Your task to perform on an android device: open app "Mercado Libre" (install if not already installed) Image 0: 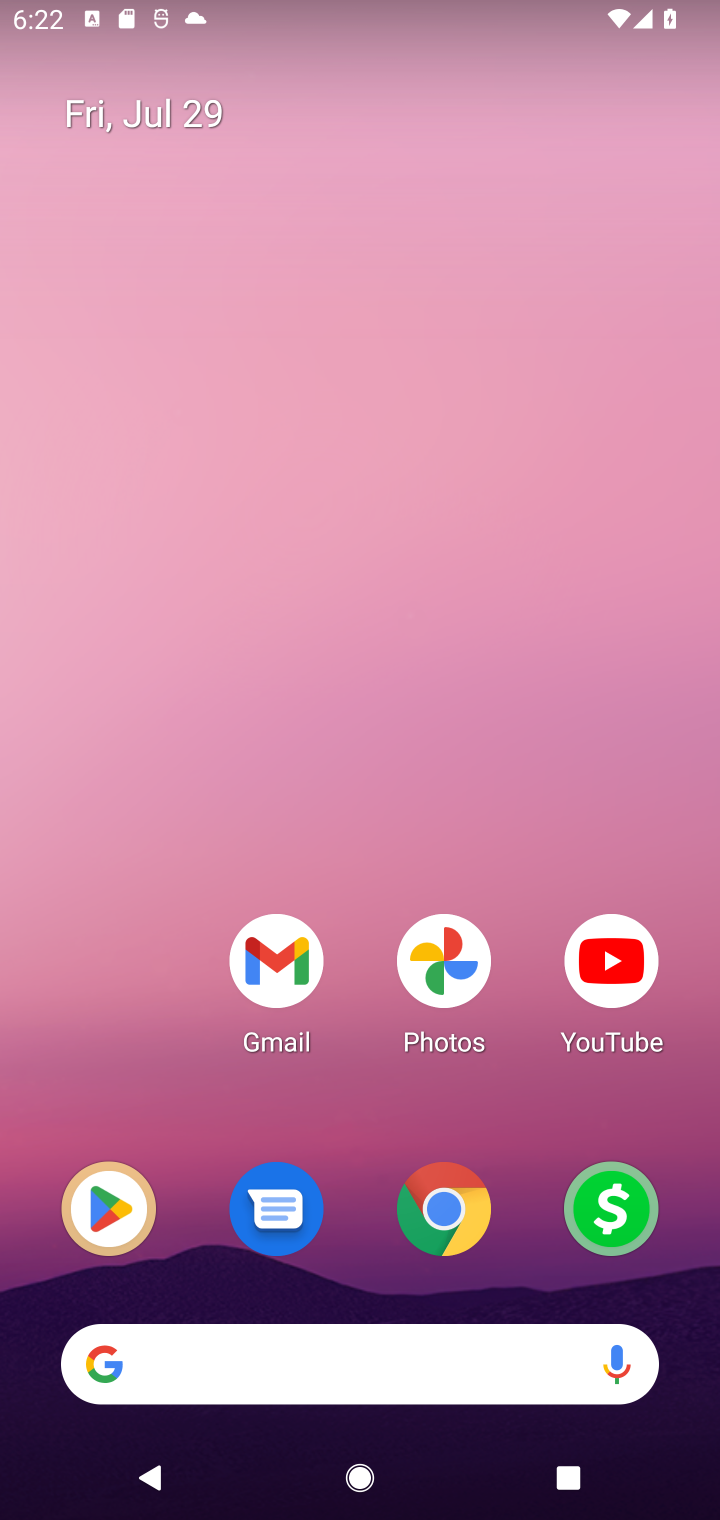
Step 0: click (83, 1225)
Your task to perform on an android device: open app "Mercado Libre" (install if not already installed) Image 1: 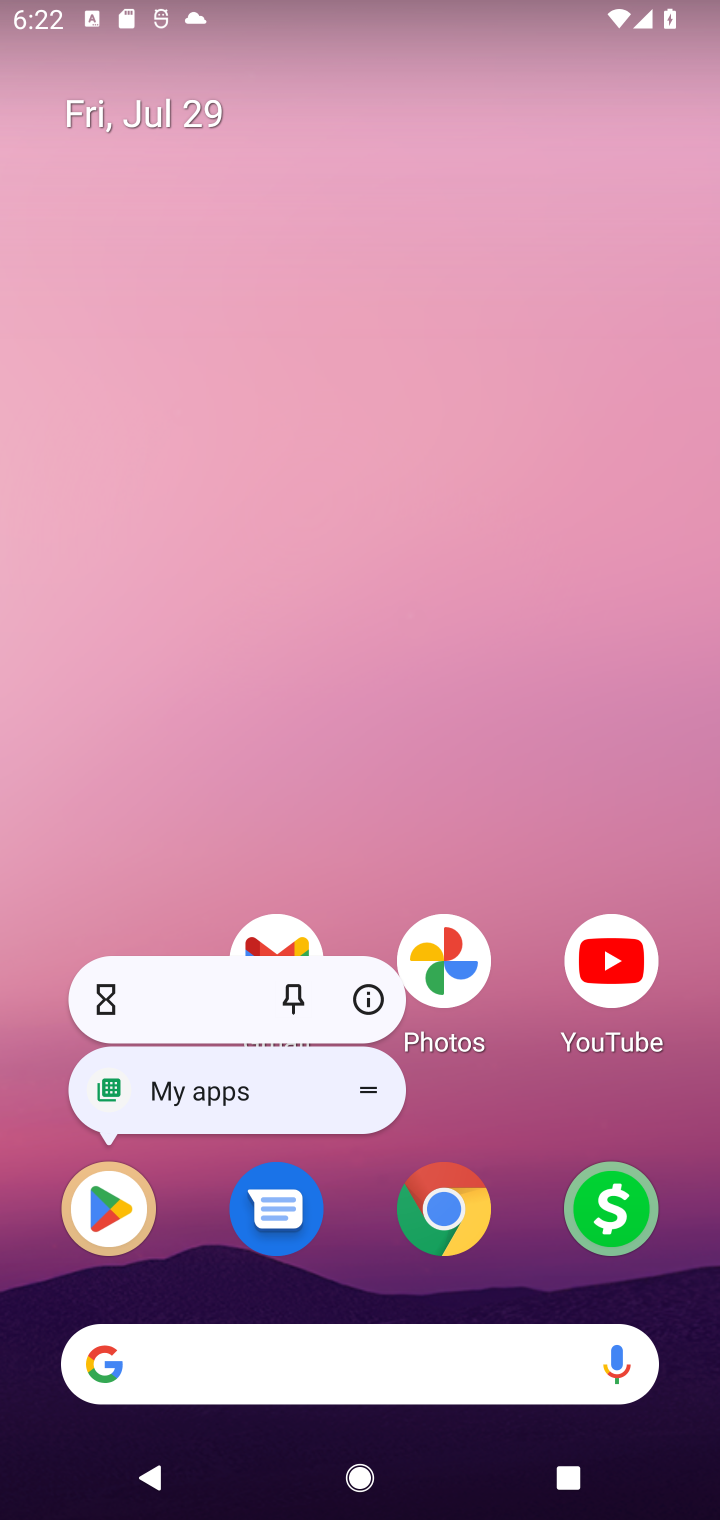
Step 1: click (107, 1225)
Your task to perform on an android device: open app "Mercado Libre" (install if not already installed) Image 2: 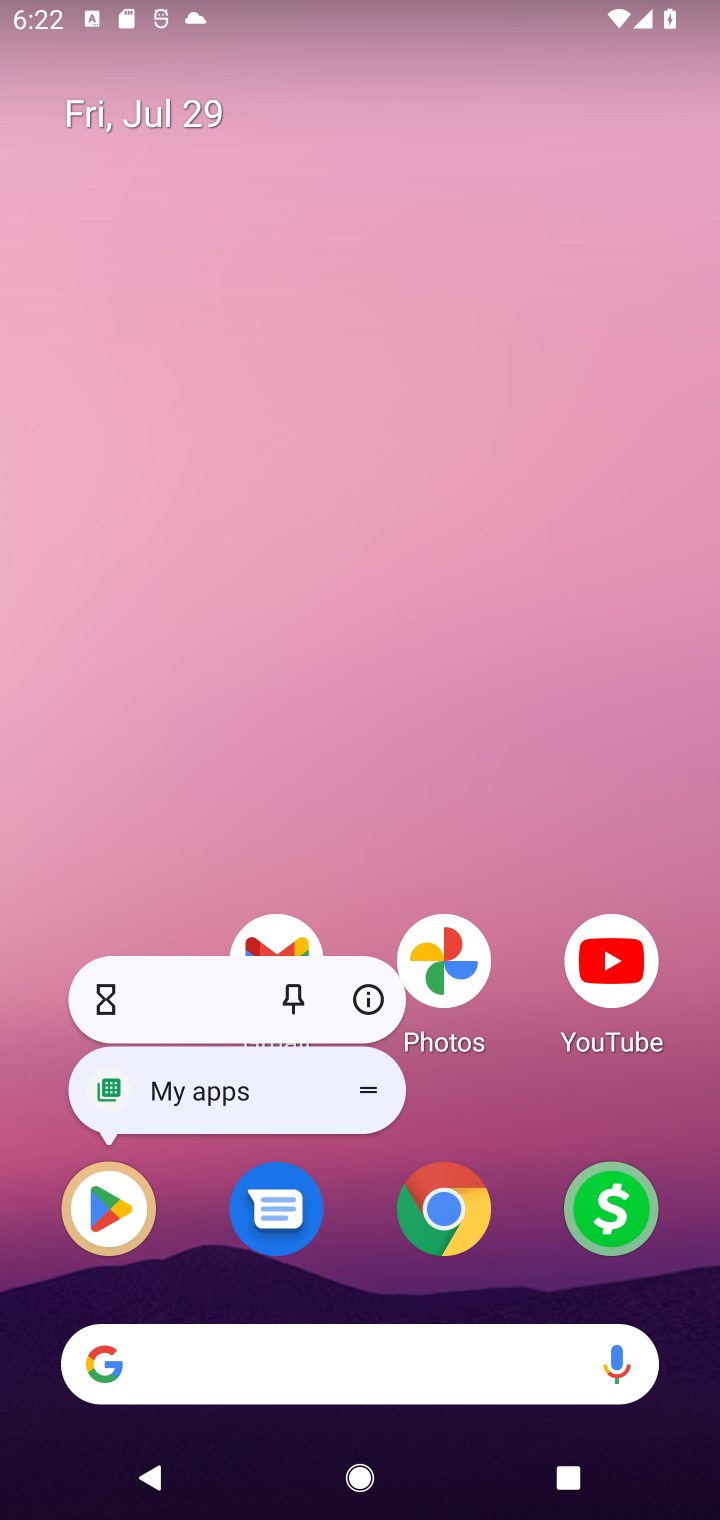
Step 2: click (108, 1225)
Your task to perform on an android device: open app "Mercado Libre" (install if not already installed) Image 3: 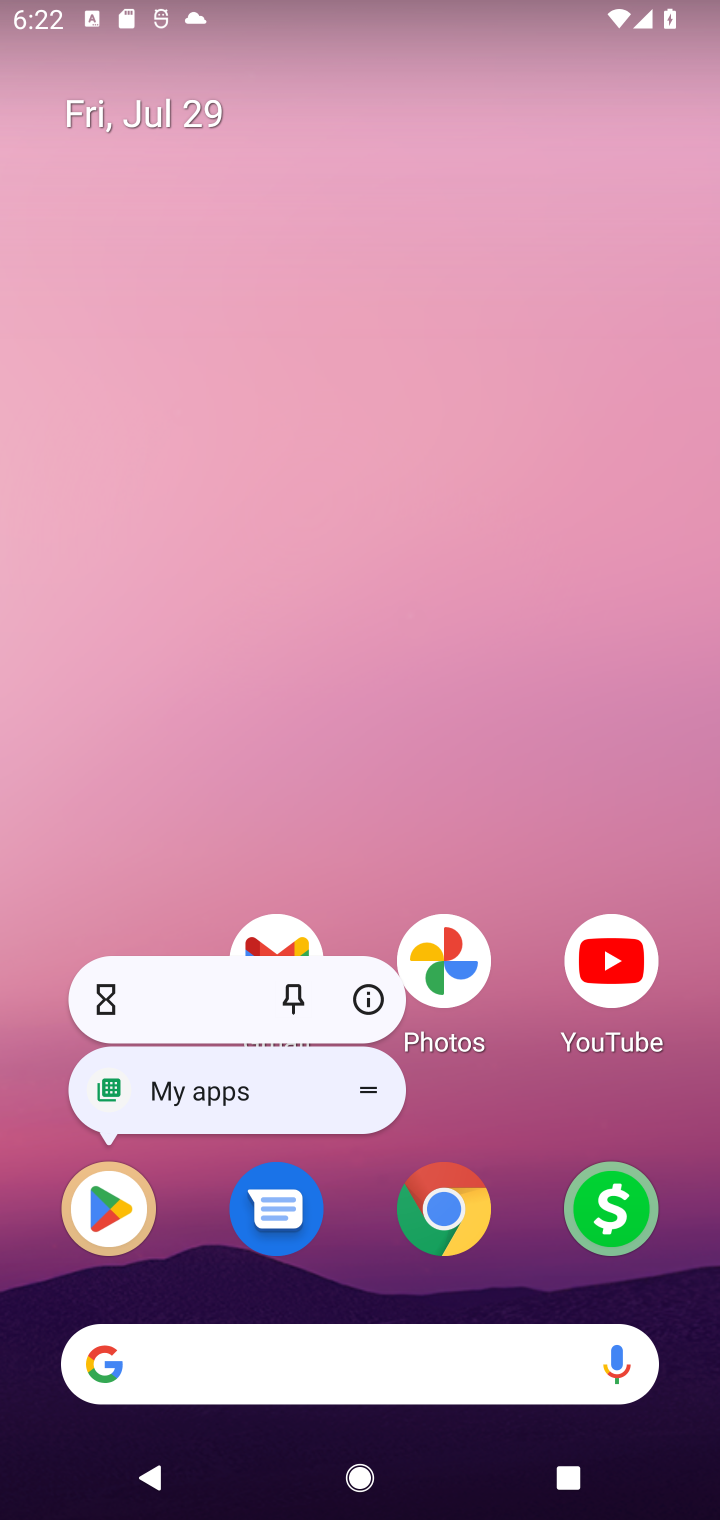
Step 3: click (108, 1225)
Your task to perform on an android device: open app "Mercado Libre" (install if not already installed) Image 4: 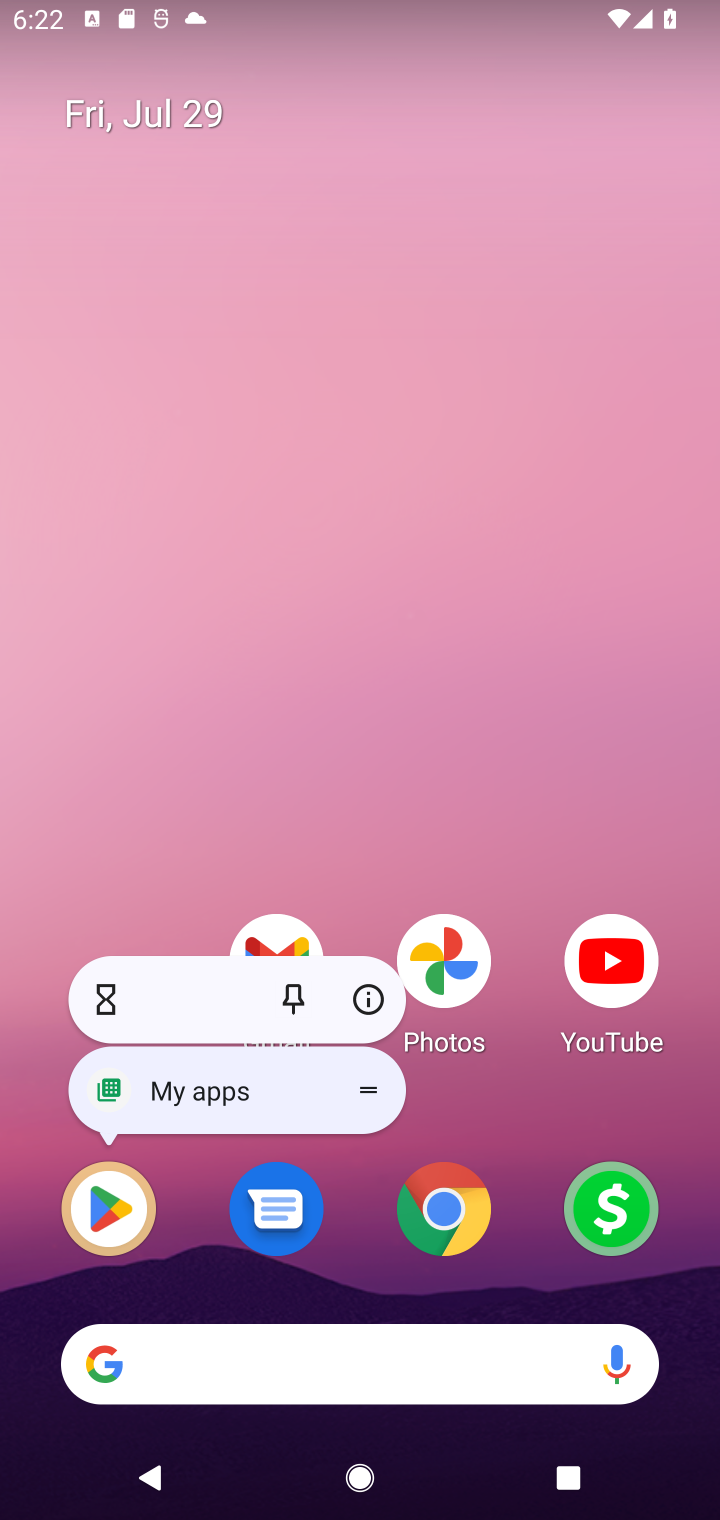
Step 4: click (108, 1225)
Your task to perform on an android device: open app "Mercado Libre" (install if not already installed) Image 5: 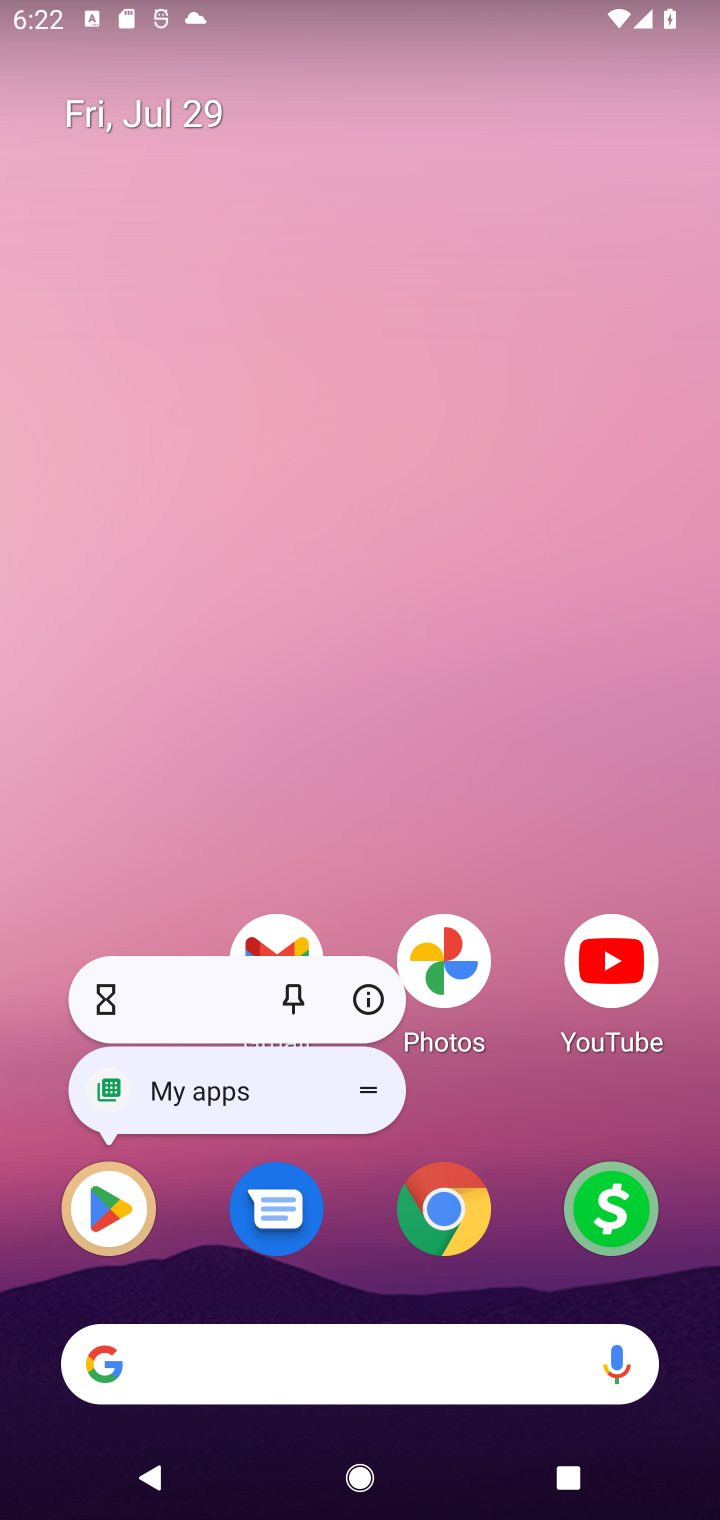
Step 5: click (108, 1225)
Your task to perform on an android device: open app "Mercado Libre" (install if not already installed) Image 6: 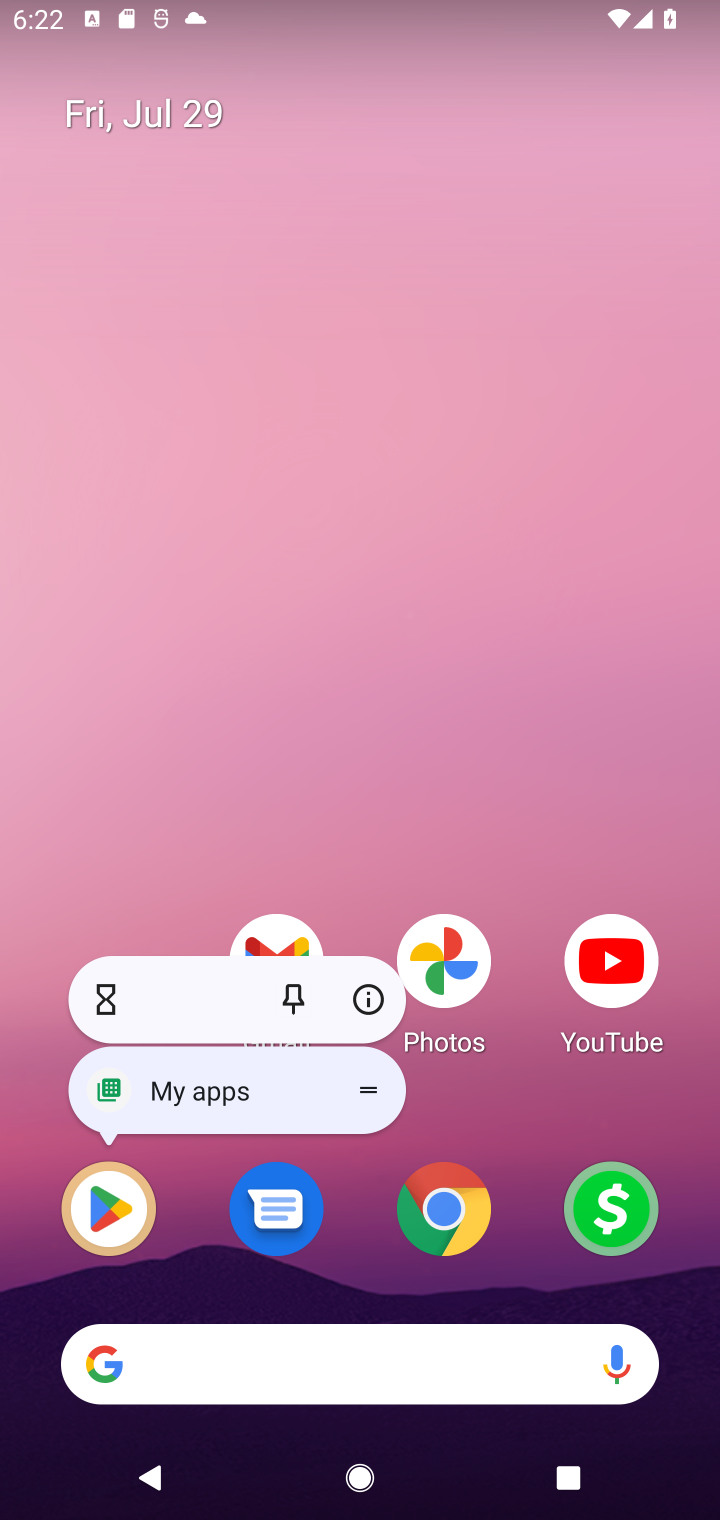
Step 6: click (108, 1225)
Your task to perform on an android device: open app "Mercado Libre" (install if not already installed) Image 7: 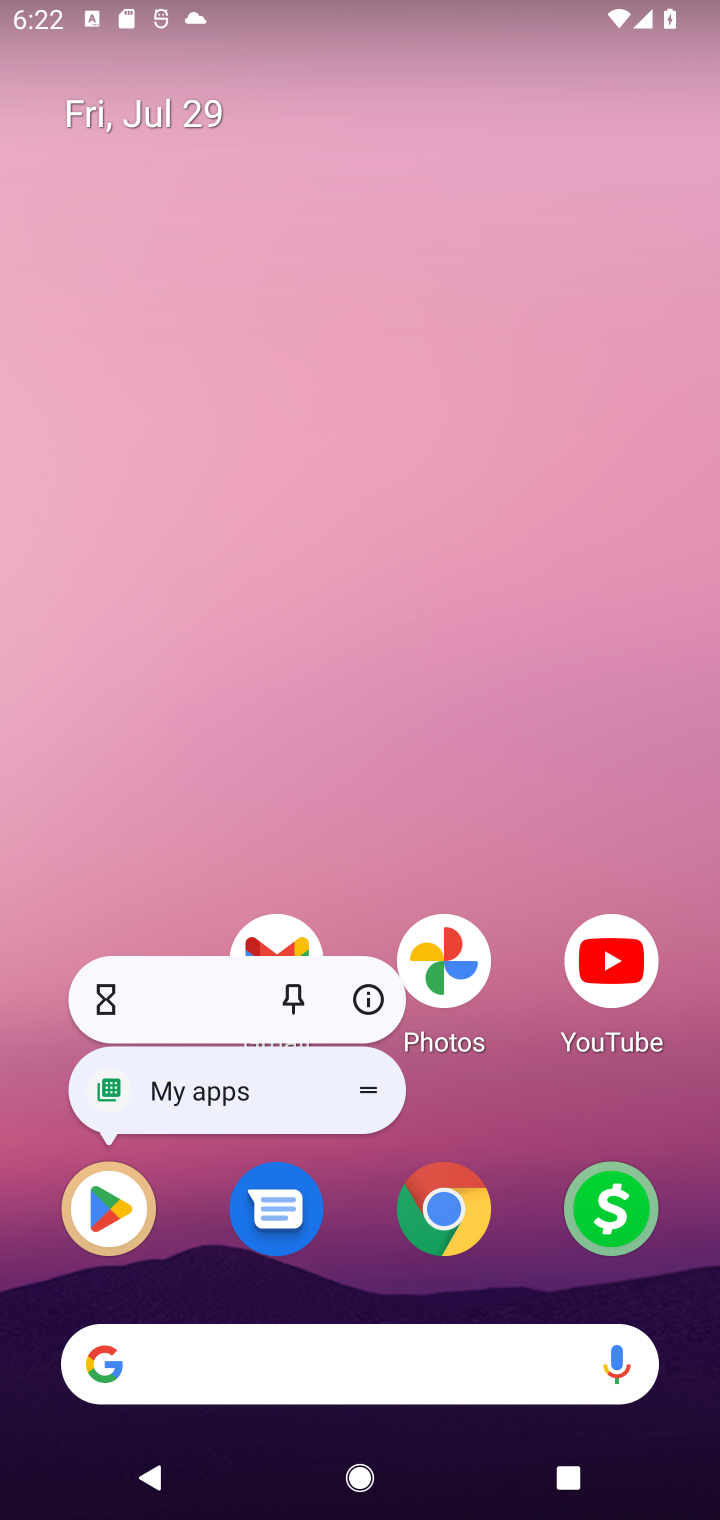
Step 7: click (108, 1225)
Your task to perform on an android device: open app "Mercado Libre" (install if not already installed) Image 8: 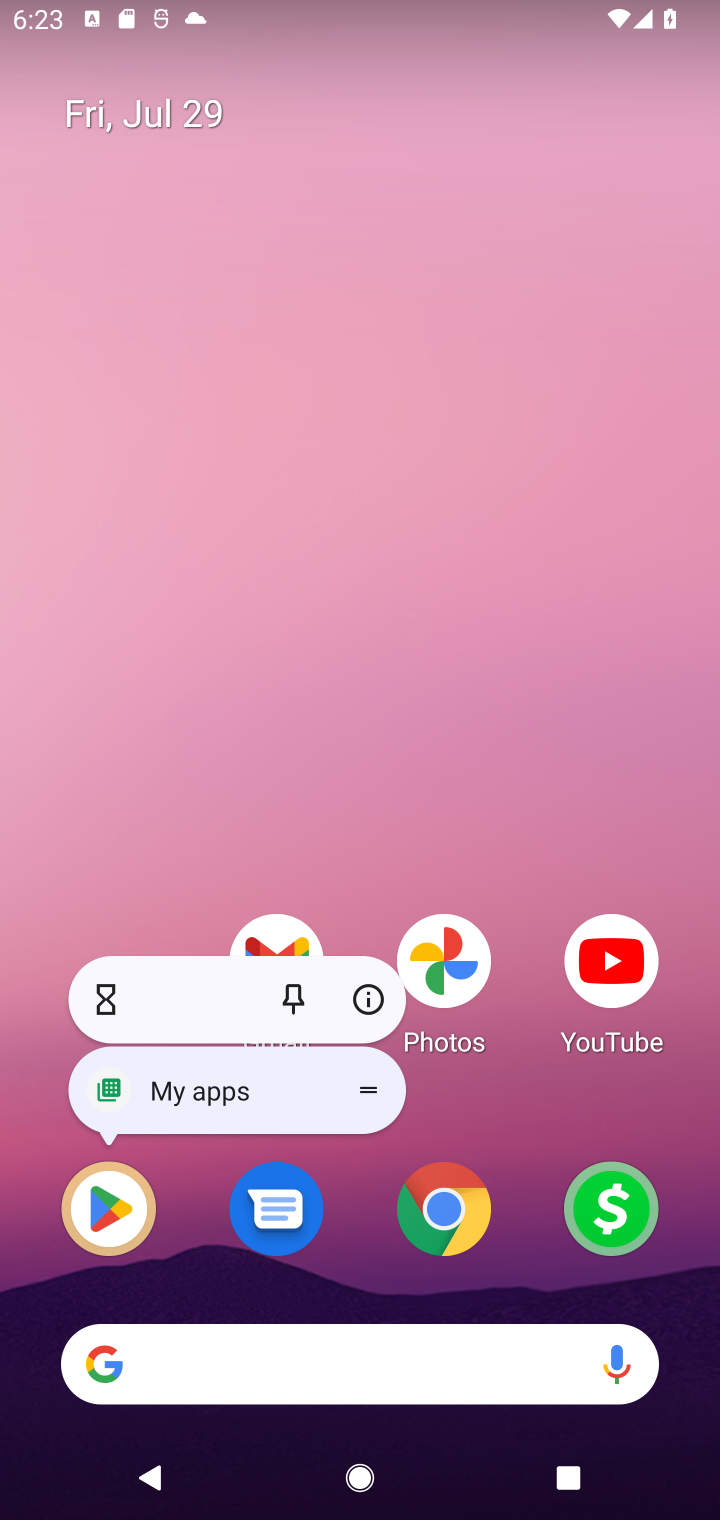
Step 8: click (108, 1225)
Your task to perform on an android device: open app "Mercado Libre" (install if not already installed) Image 9: 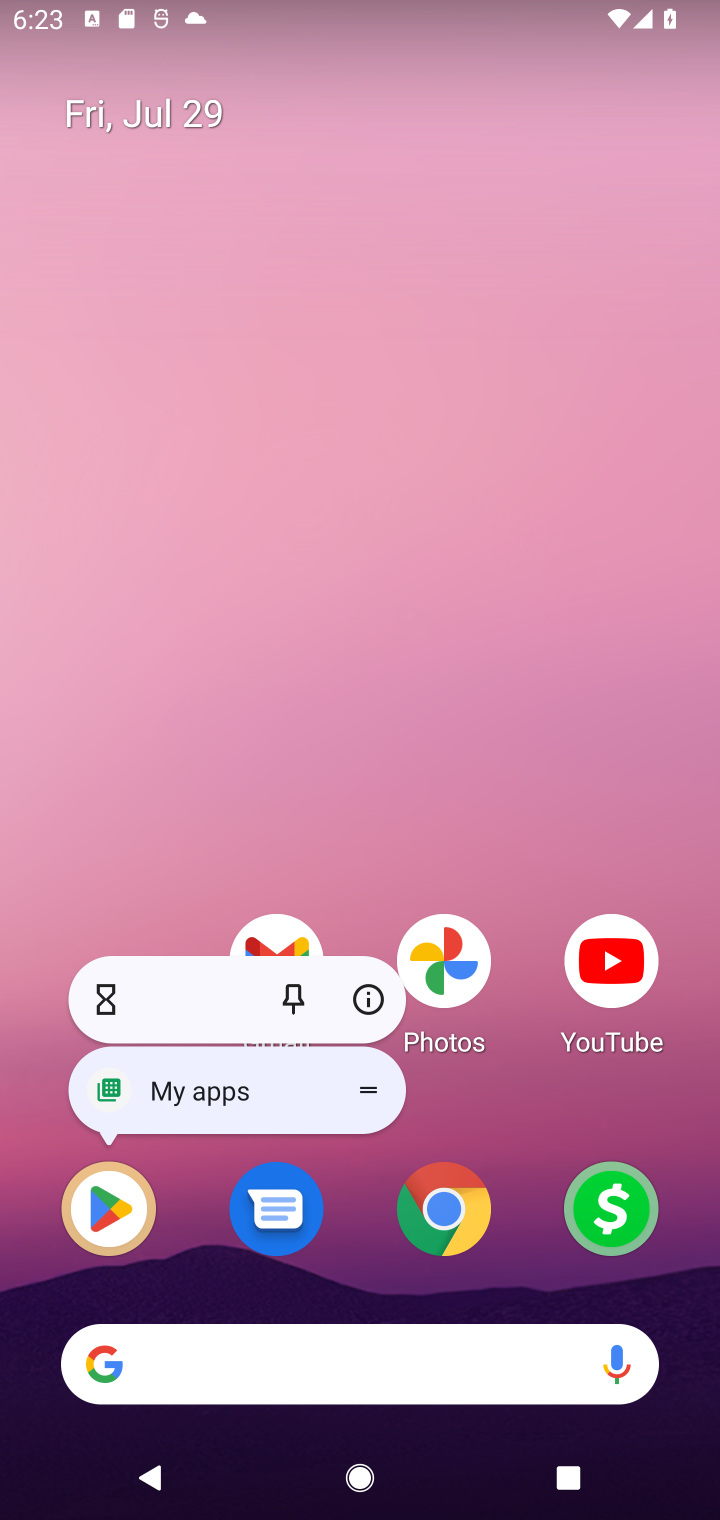
Step 9: click (108, 1225)
Your task to perform on an android device: open app "Mercado Libre" (install if not already installed) Image 10: 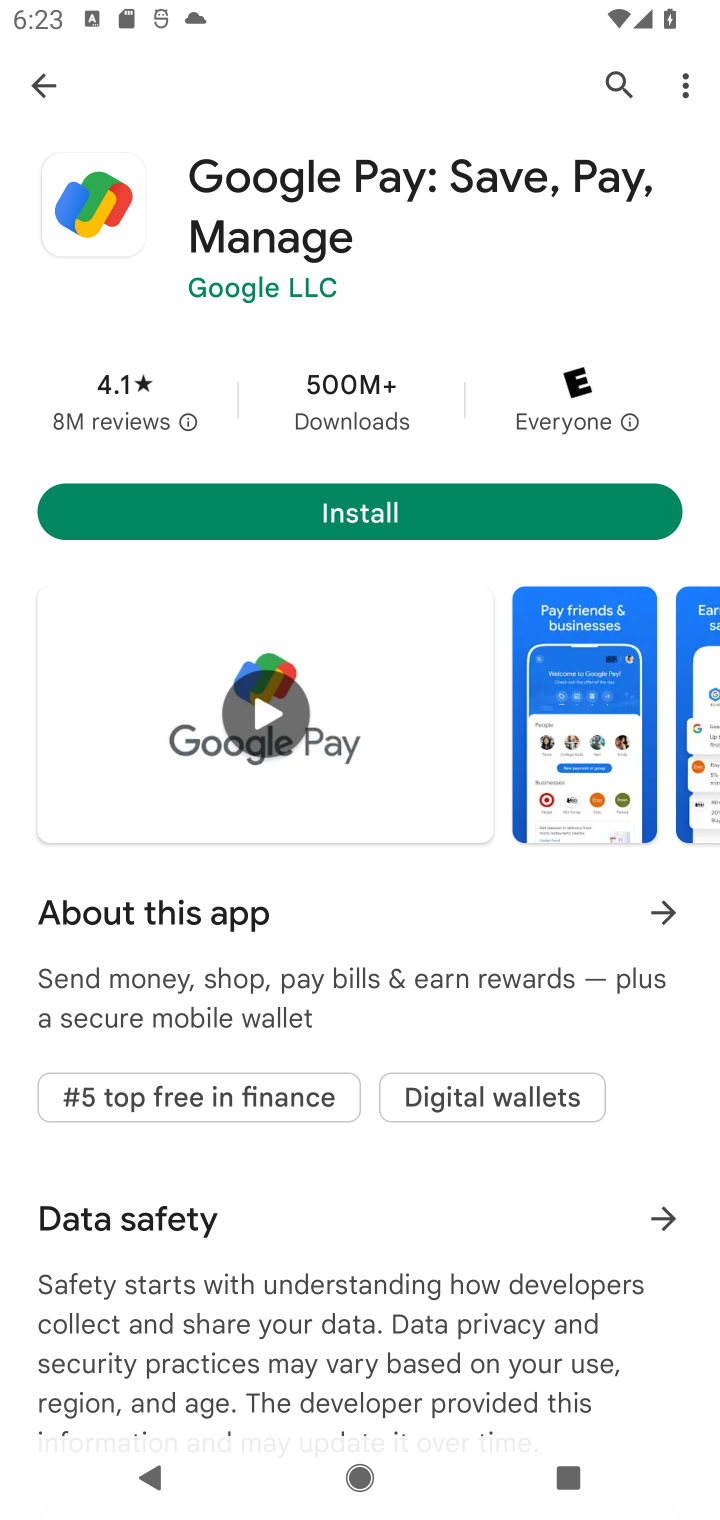
Step 10: click (626, 87)
Your task to perform on an android device: open app "Mercado Libre" (install if not already installed) Image 11: 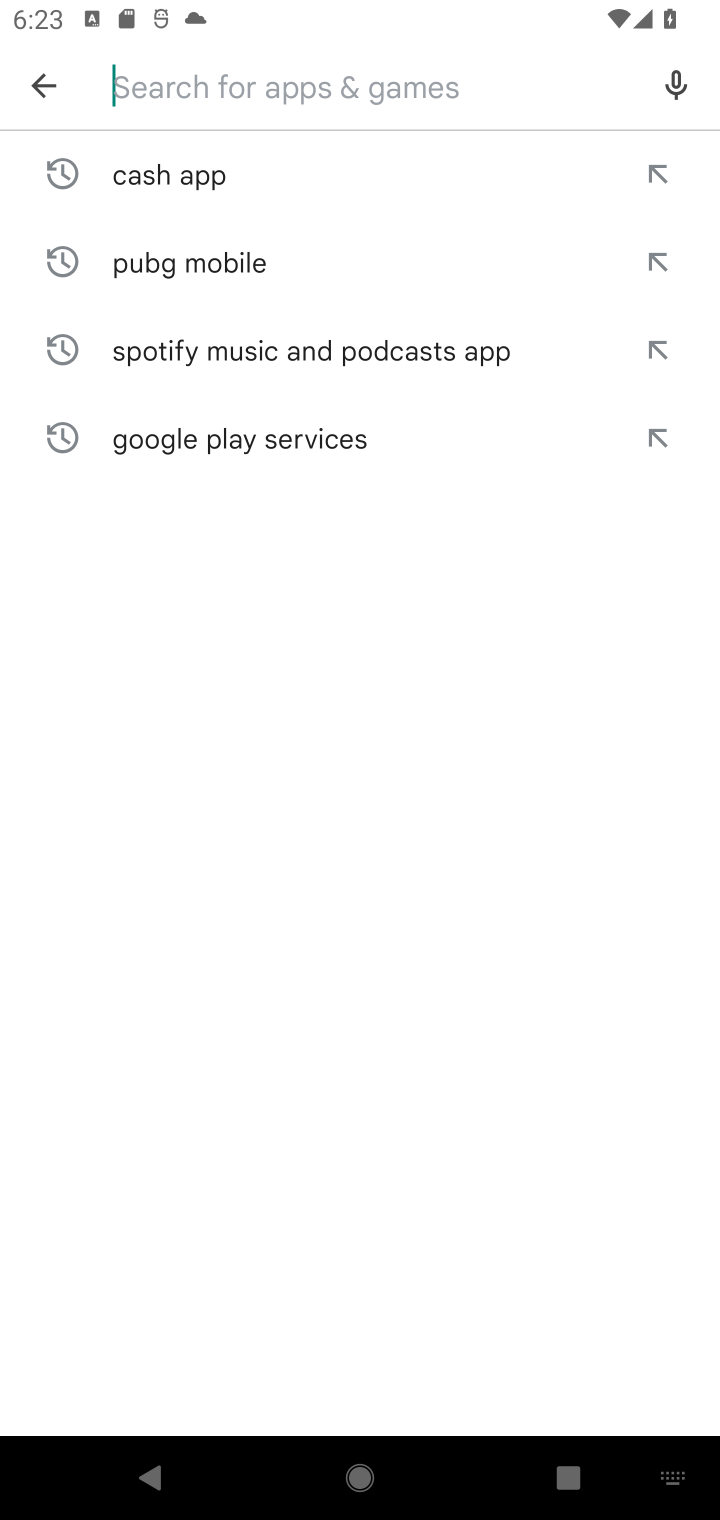
Step 11: type "Mercado Libre"
Your task to perform on an android device: open app "Mercado Libre" (install if not already installed) Image 12: 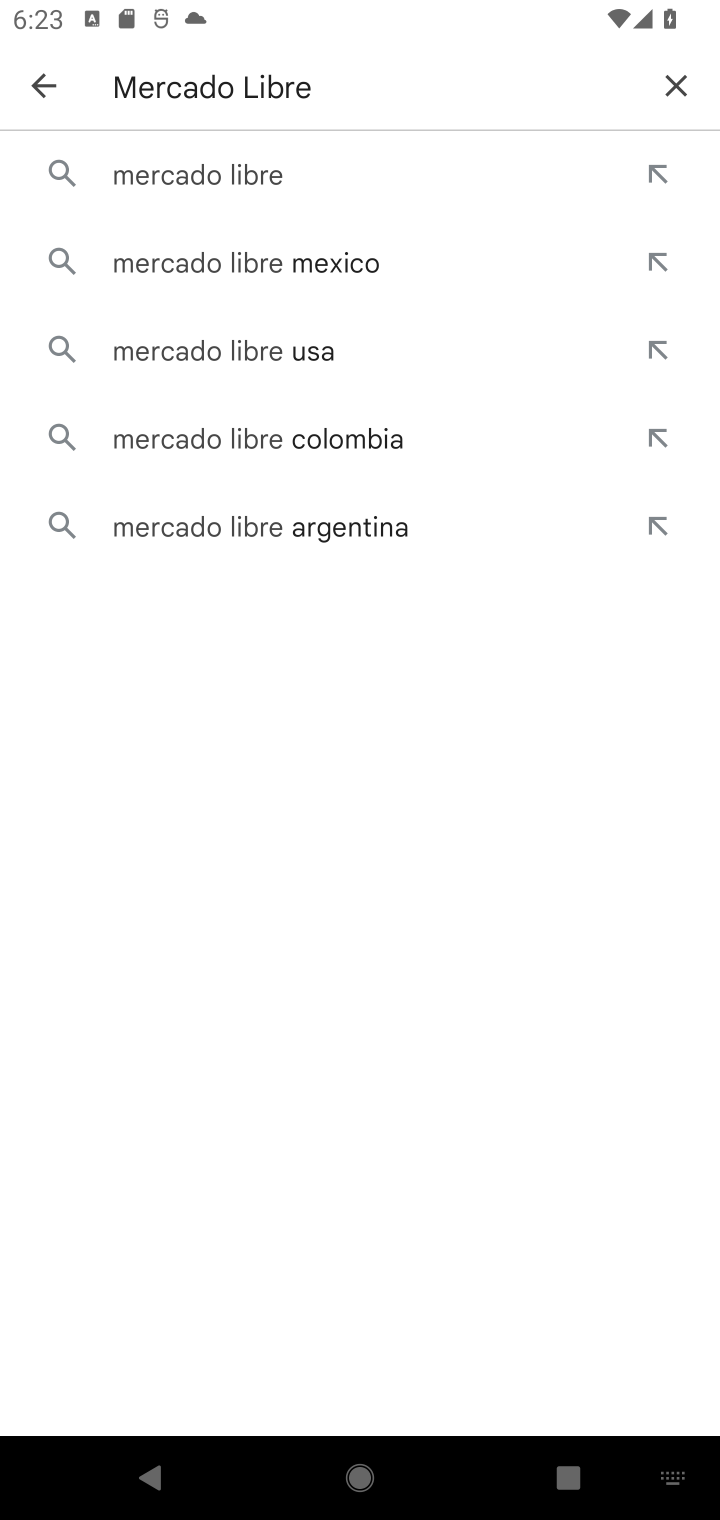
Step 12: click (262, 186)
Your task to perform on an android device: open app "Mercado Libre" (install if not already installed) Image 13: 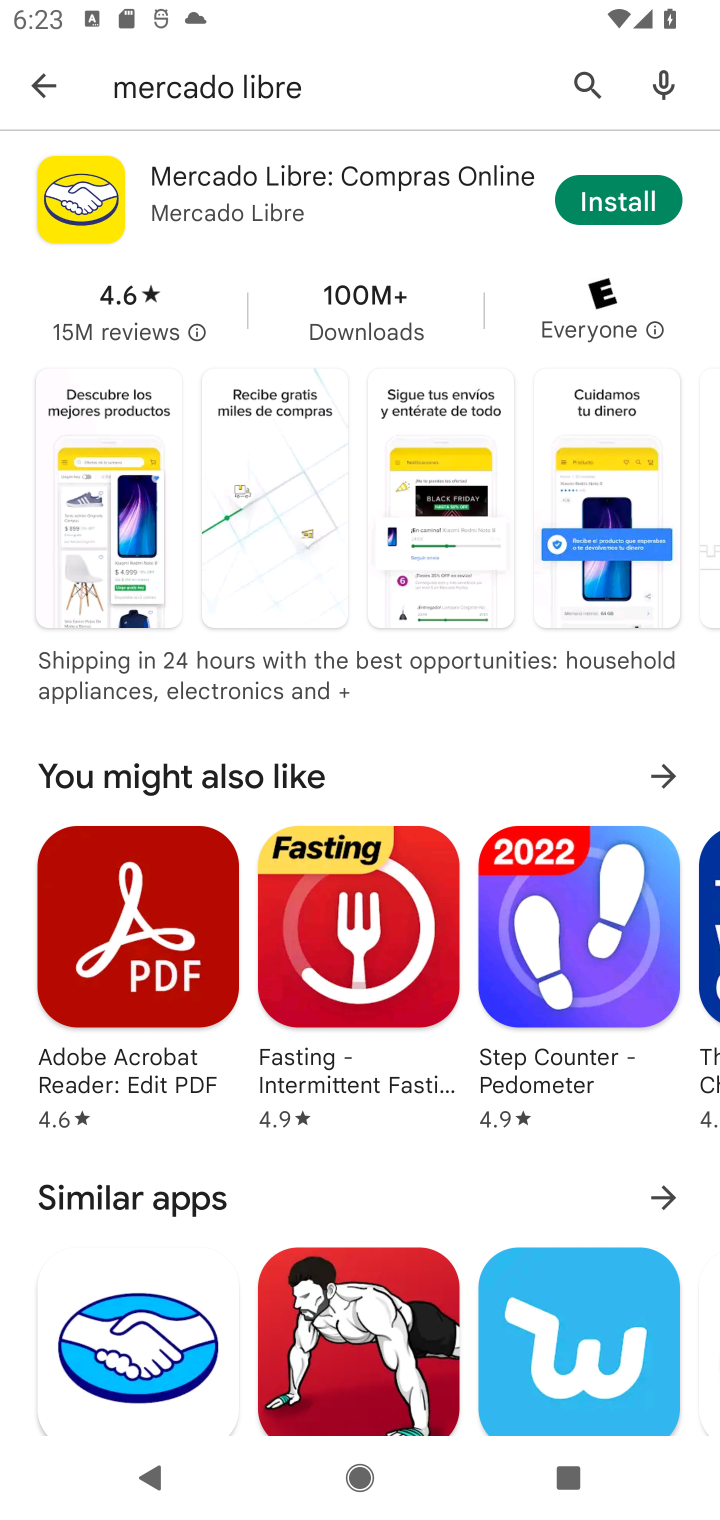
Step 13: click (647, 200)
Your task to perform on an android device: open app "Mercado Libre" (install if not already installed) Image 14: 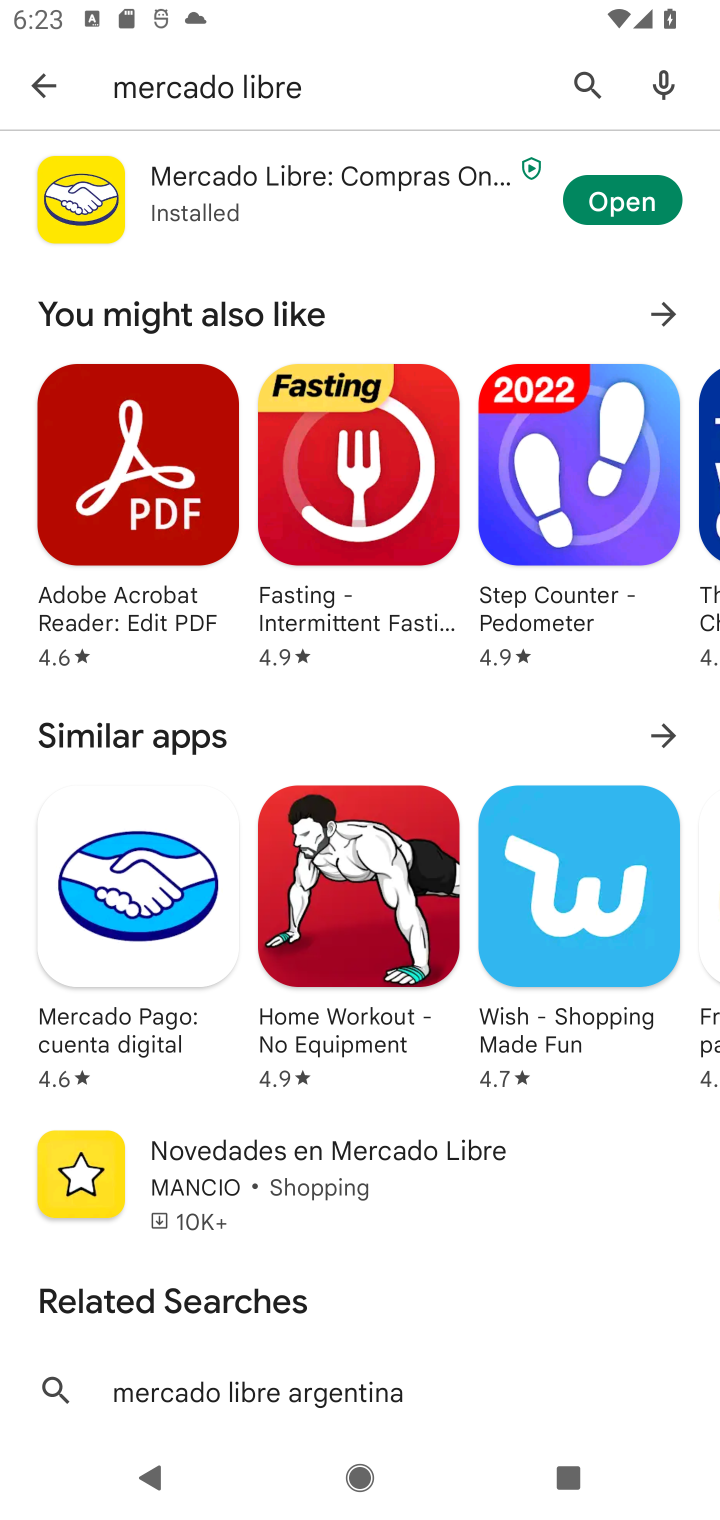
Step 14: click (595, 207)
Your task to perform on an android device: open app "Mercado Libre" (install if not already installed) Image 15: 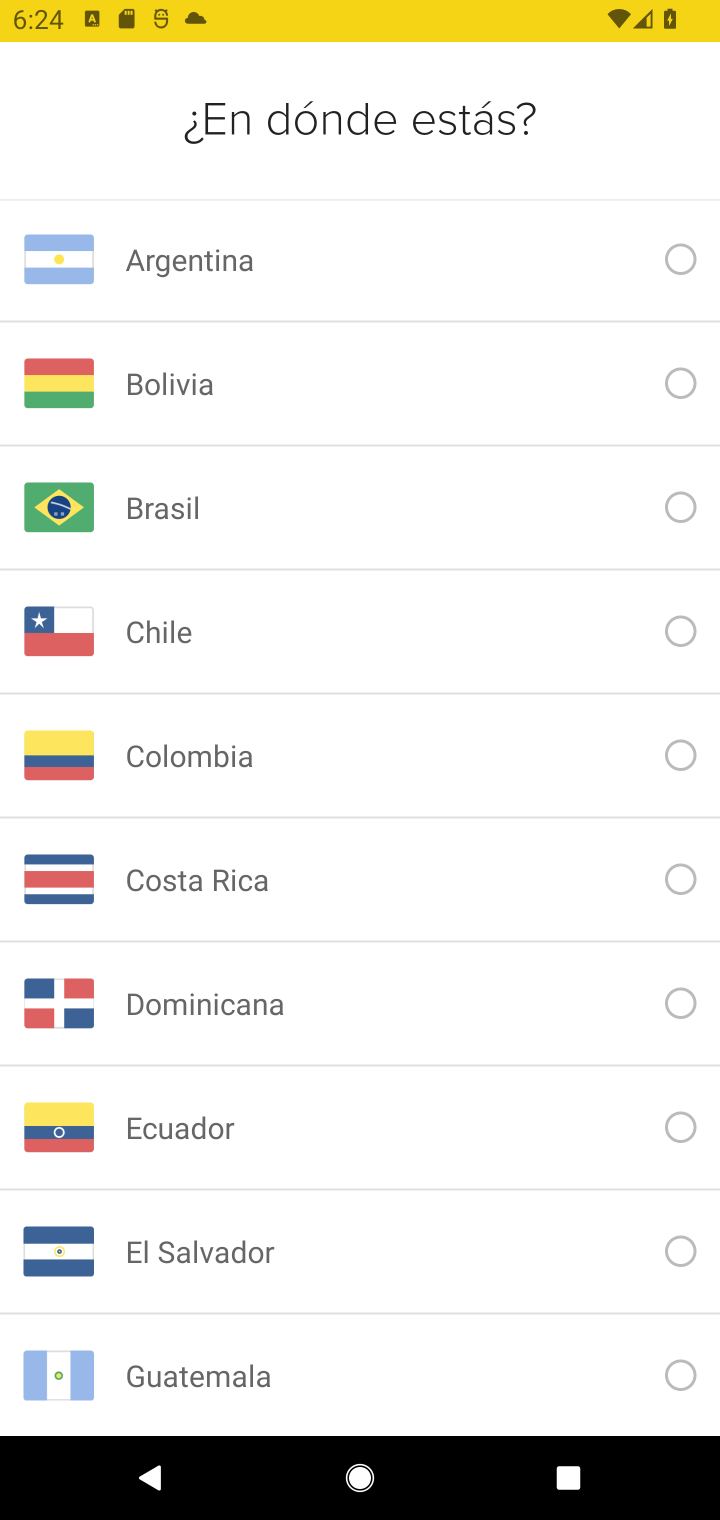
Step 15: task complete